Your task to perform on an android device: Open Google Chrome and open the bookmarks view Image 0: 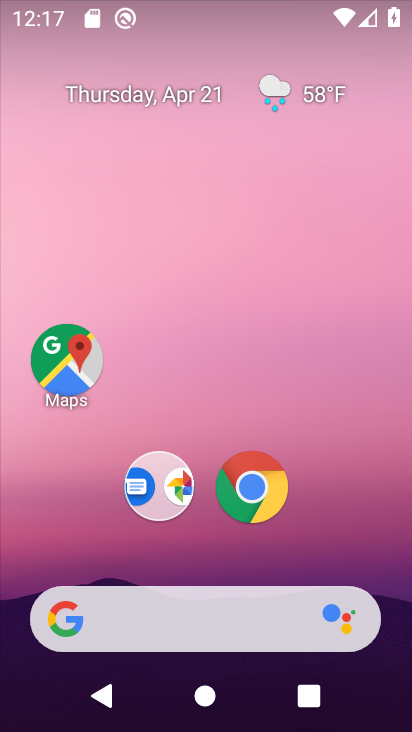
Step 0: drag from (259, 656) to (236, 167)
Your task to perform on an android device: Open Google Chrome and open the bookmarks view Image 1: 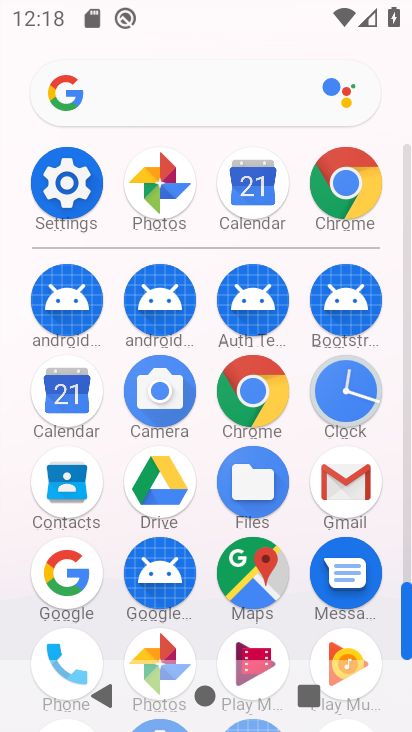
Step 1: click (335, 189)
Your task to perform on an android device: Open Google Chrome and open the bookmarks view Image 2: 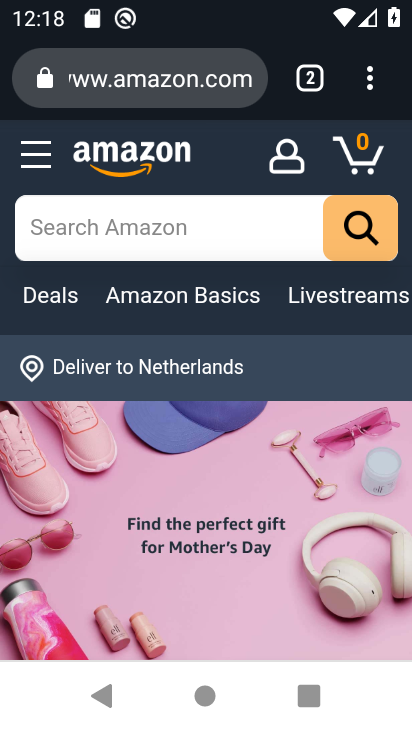
Step 2: click (365, 90)
Your task to perform on an android device: Open Google Chrome and open the bookmarks view Image 3: 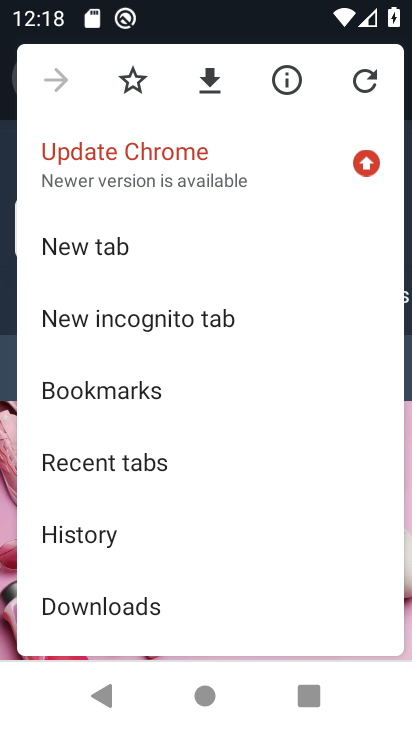
Step 3: click (127, 391)
Your task to perform on an android device: Open Google Chrome and open the bookmarks view Image 4: 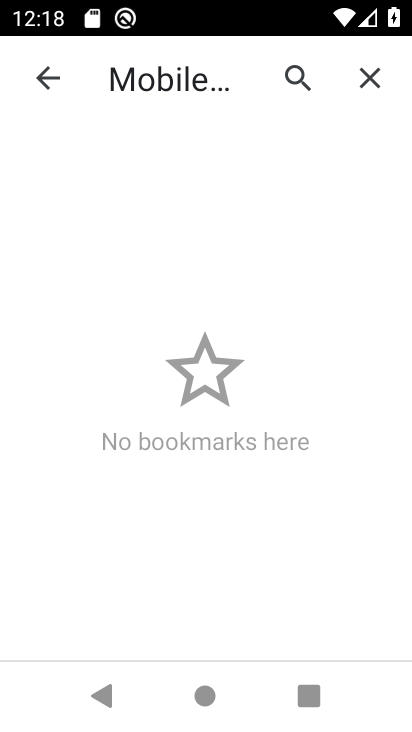
Step 4: task complete